Your task to perform on an android device: turn notification dots on Image 0: 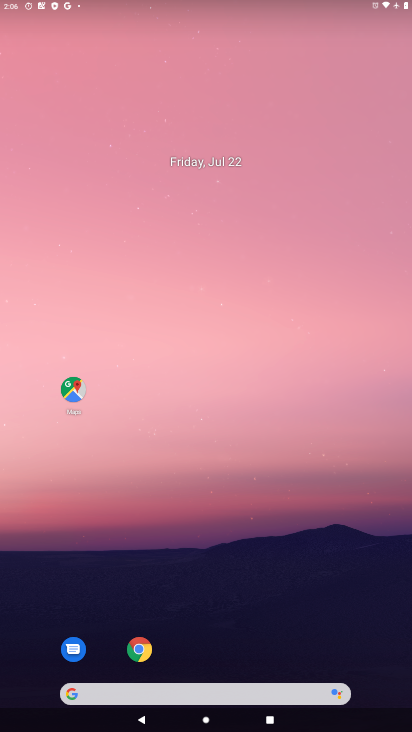
Step 0: drag from (265, 457) to (259, 28)
Your task to perform on an android device: turn notification dots on Image 1: 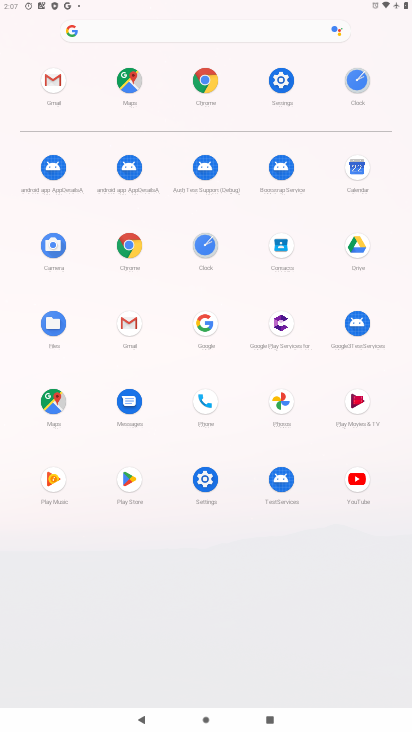
Step 1: click (284, 79)
Your task to perform on an android device: turn notification dots on Image 2: 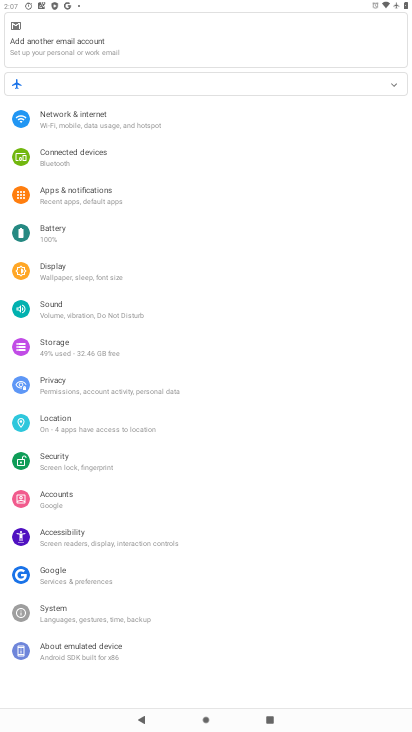
Step 2: click (99, 187)
Your task to perform on an android device: turn notification dots on Image 3: 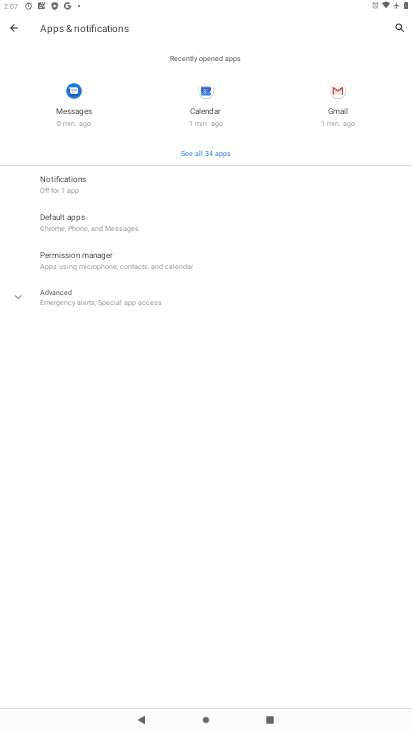
Step 3: click (109, 186)
Your task to perform on an android device: turn notification dots on Image 4: 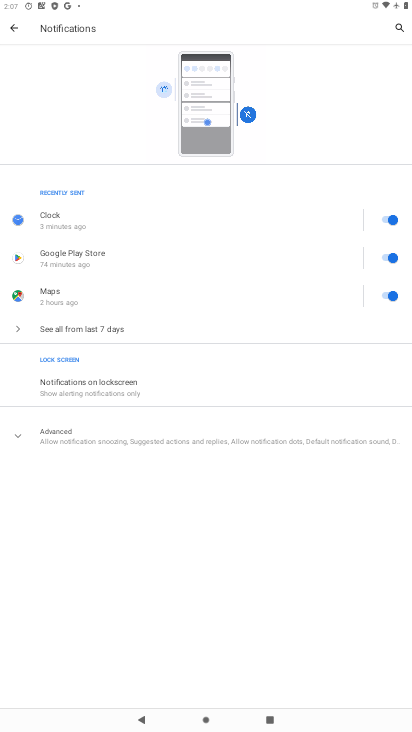
Step 4: click (132, 391)
Your task to perform on an android device: turn notification dots on Image 5: 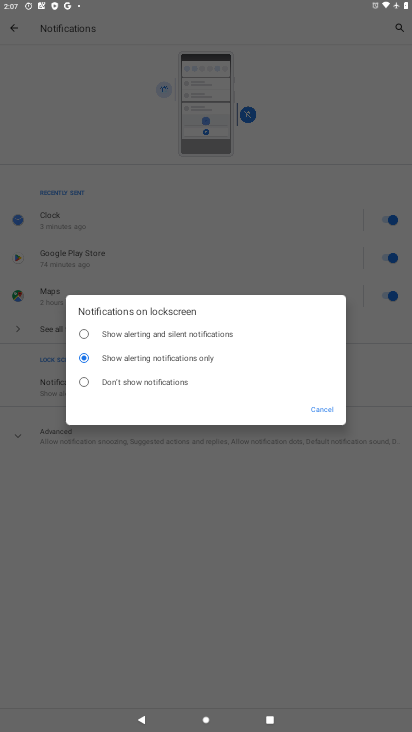
Step 5: click (317, 403)
Your task to perform on an android device: turn notification dots on Image 6: 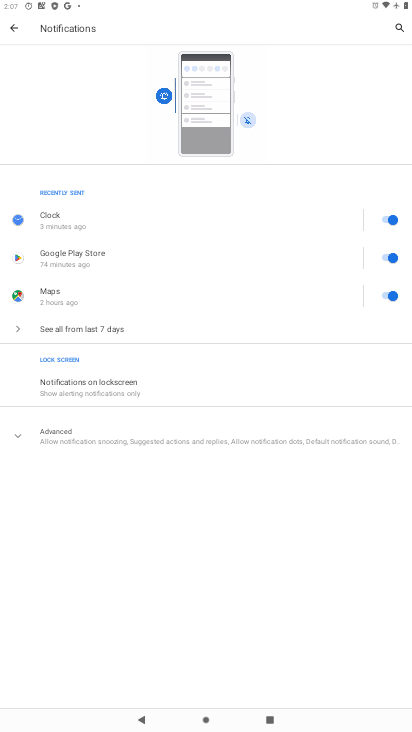
Step 6: click (252, 438)
Your task to perform on an android device: turn notification dots on Image 7: 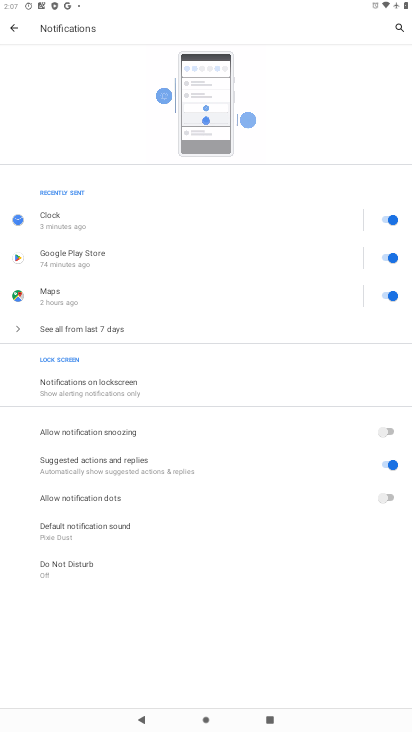
Step 7: click (376, 509)
Your task to perform on an android device: turn notification dots on Image 8: 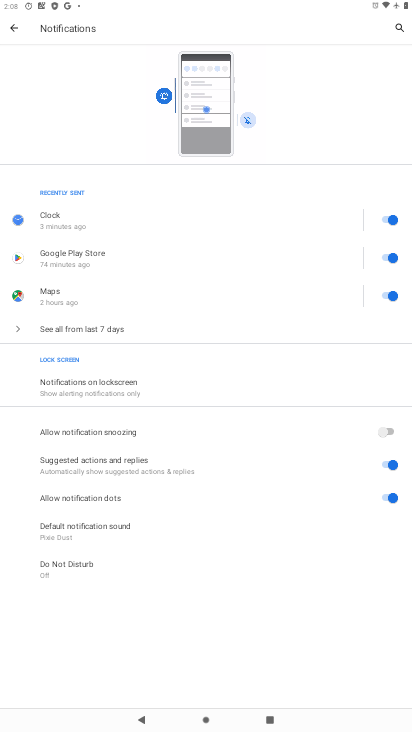
Step 8: task complete